Your task to perform on an android device: Open Wikipedia Image 0: 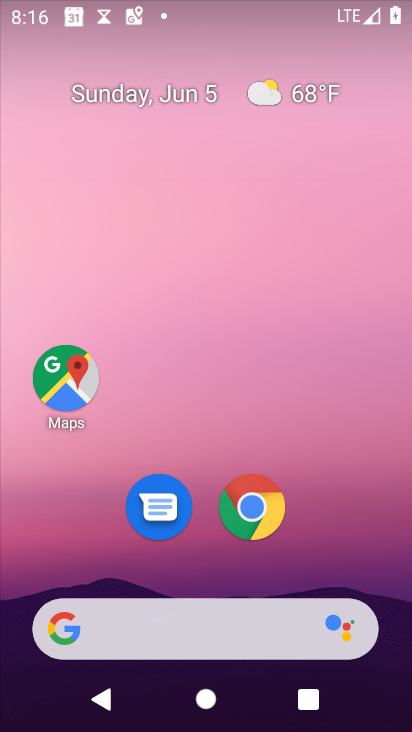
Step 0: click (260, 495)
Your task to perform on an android device: Open Wikipedia Image 1: 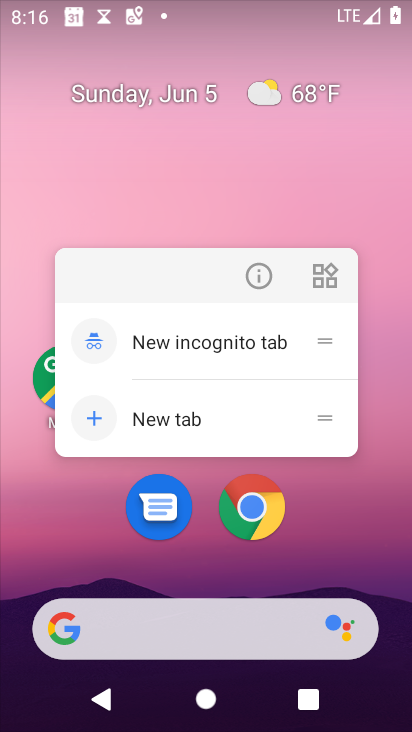
Step 1: click (271, 498)
Your task to perform on an android device: Open Wikipedia Image 2: 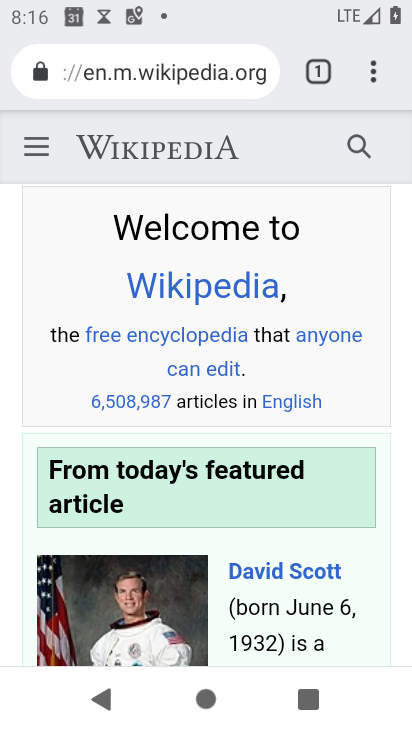
Step 2: click (165, 146)
Your task to perform on an android device: Open Wikipedia Image 3: 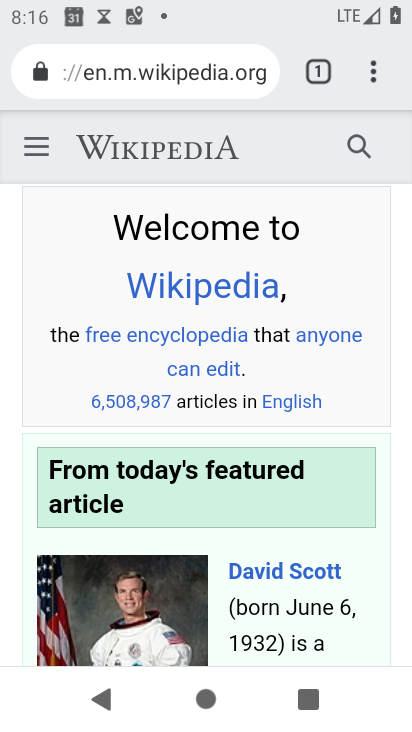
Step 3: task complete